Your task to perform on an android device: Go to ESPN.com Image 0: 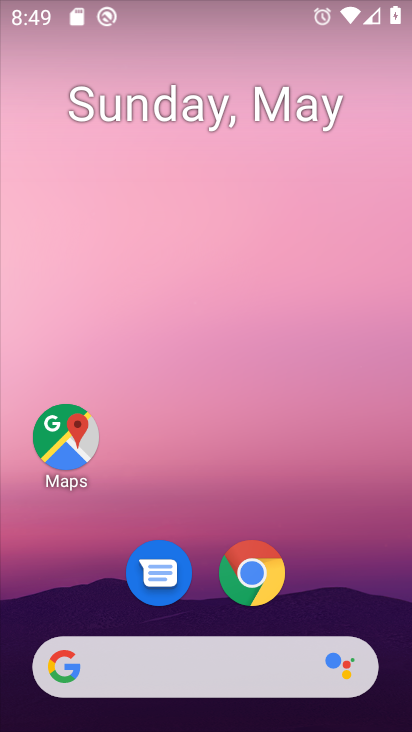
Step 0: click (221, 671)
Your task to perform on an android device: Go to ESPN.com Image 1: 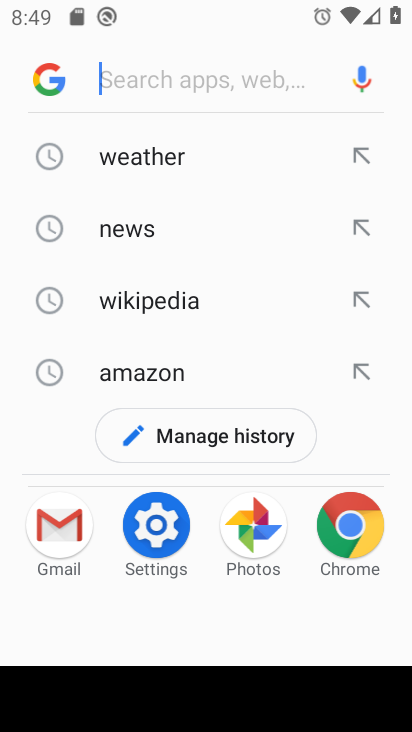
Step 1: type "espn.com"
Your task to perform on an android device: Go to ESPN.com Image 2: 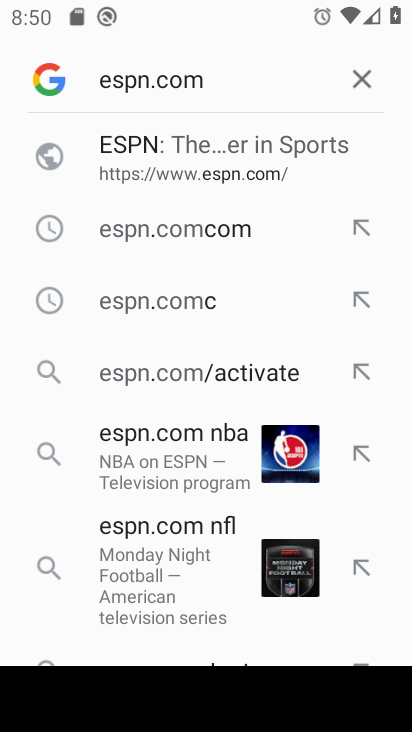
Step 2: click (144, 148)
Your task to perform on an android device: Go to ESPN.com Image 3: 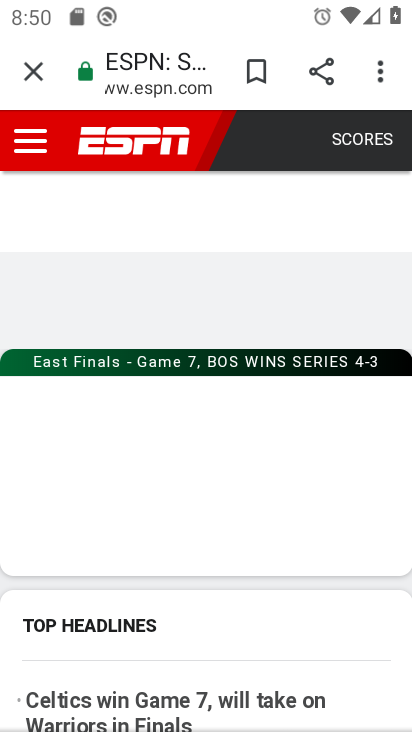
Step 3: task complete